Your task to perform on an android device: Show the shopping cart on bestbuy. Search for bose soundlink on bestbuy, select the first entry, and add it to the cart. Image 0: 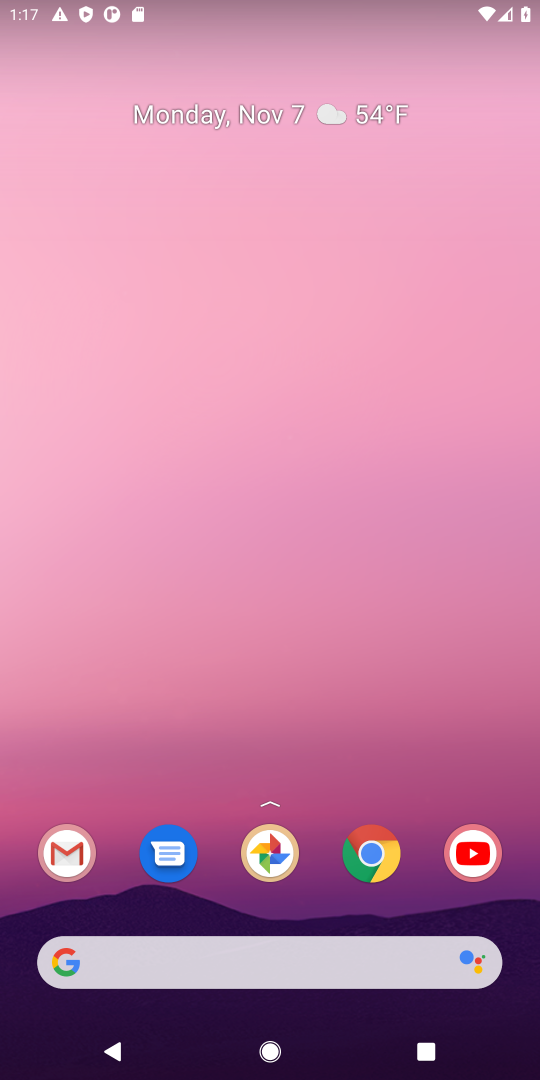
Step 0: drag from (227, 857) to (277, 99)
Your task to perform on an android device: Show the shopping cart on bestbuy. Search for bose soundlink on bestbuy, select the first entry, and add it to the cart. Image 1: 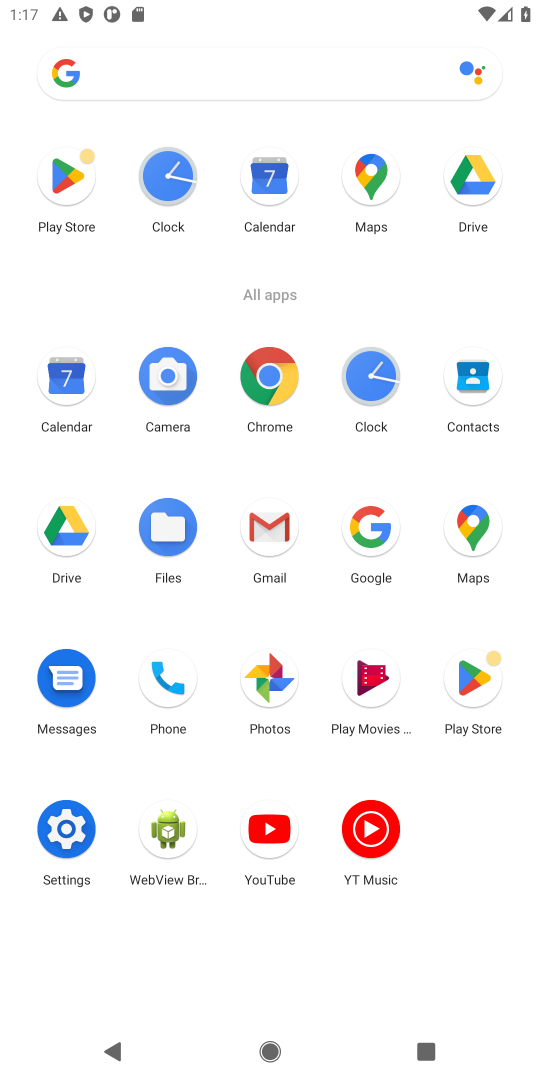
Step 1: click (286, 380)
Your task to perform on an android device: Show the shopping cart on bestbuy. Search for bose soundlink on bestbuy, select the first entry, and add it to the cart. Image 2: 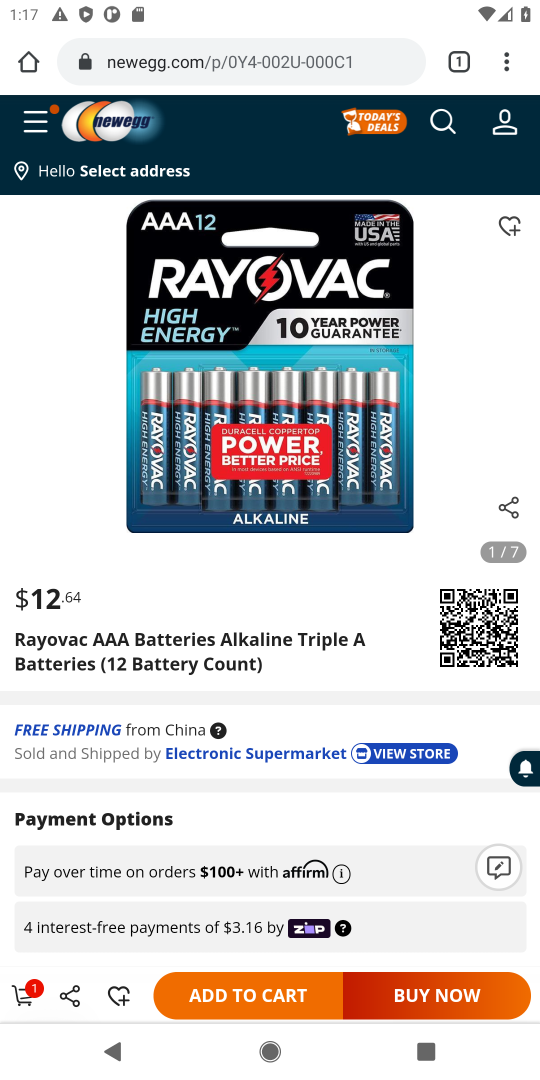
Step 2: click (286, 79)
Your task to perform on an android device: Show the shopping cart on bestbuy. Search for bose soundlink on bestbuy, select the first entry, and add it to the cart. Image 3: 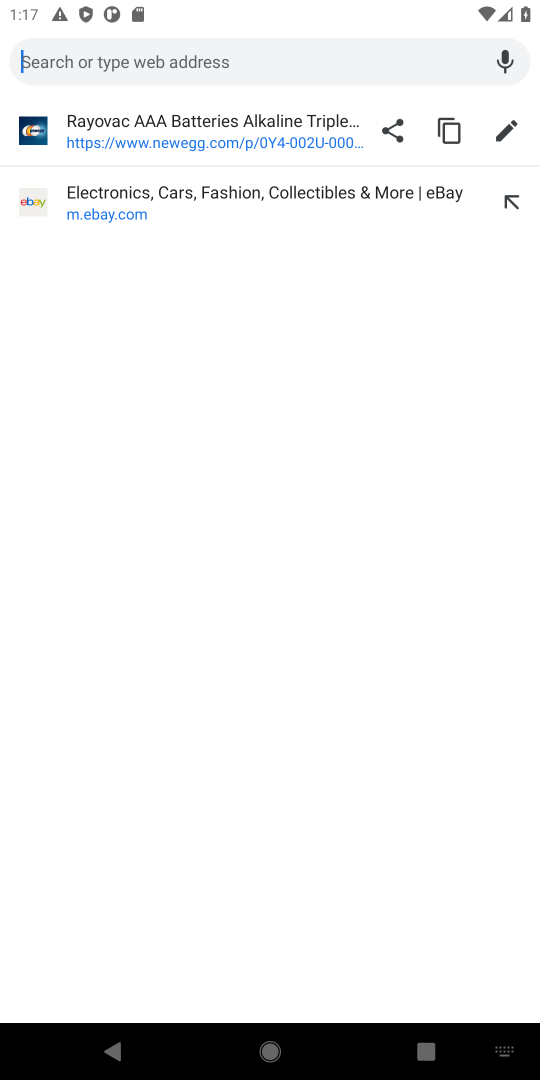
Step 3: type "bestbuy"
Your task to perform on an android device: Show the shopping cart on bestbuy. Search for bose soundlink on bestbuy, select the first entry, and add it to the cart. Image 4: 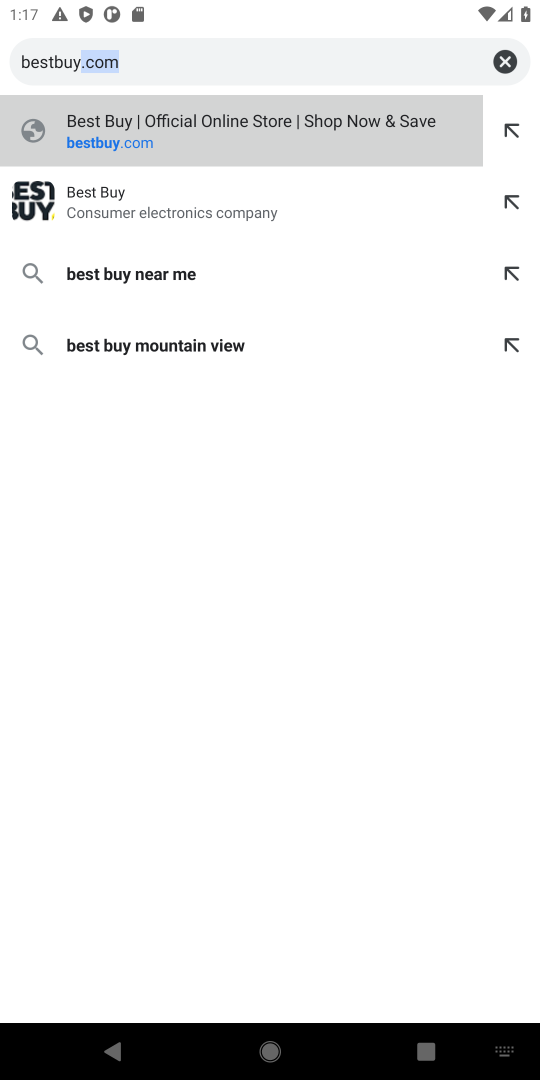
Step 4: press enter
Your task to perform on an android device: Show the shopping cart on bestbuy. Search for bose soundlink on bestbuy, select the first entry, and add it to the cart. Image 5: 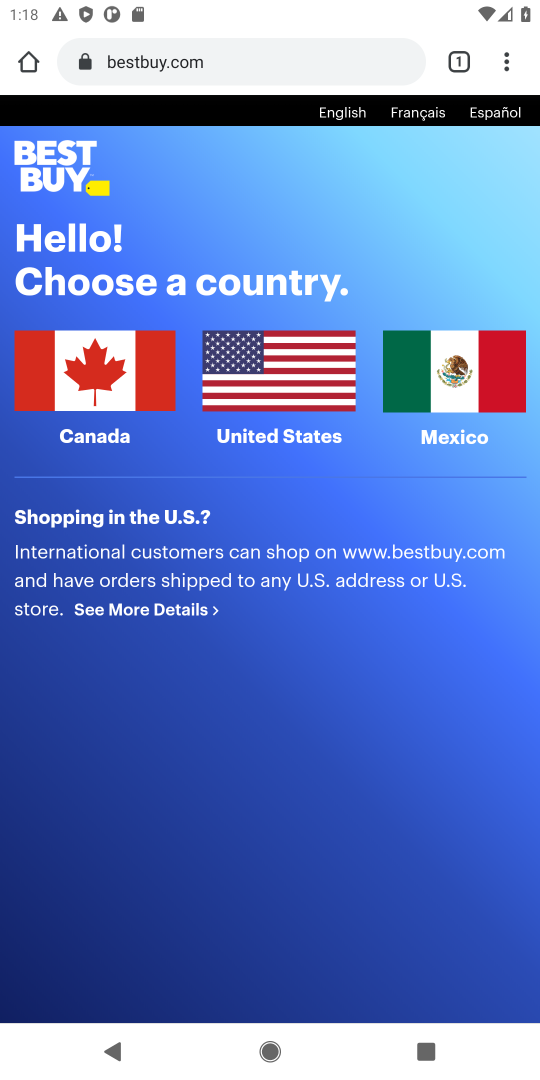
Step 5: click (84, 356)
Your task to perform on an android device: Show the shopping cart on bestbuy. Search for bose soundlink on bestbuy, select the first entry, and add it to the cart. Image 6: 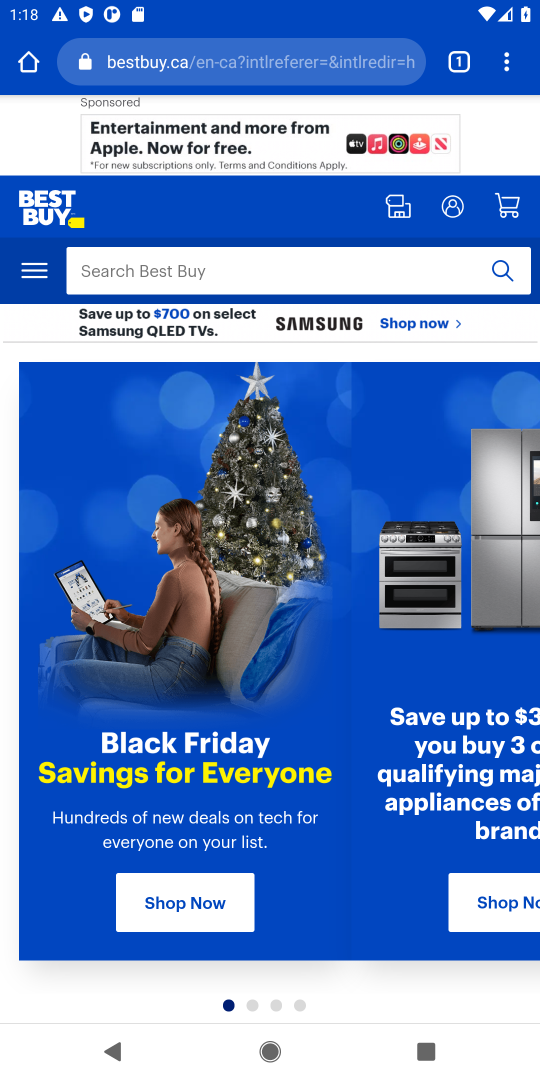
Step 6: click (99, 259)
Your task to perform on an android device: Show the shopping cart on bestbuy. Search for bose soundlink on bestbuy, select the first entry, and add it to the cart. Image 7: 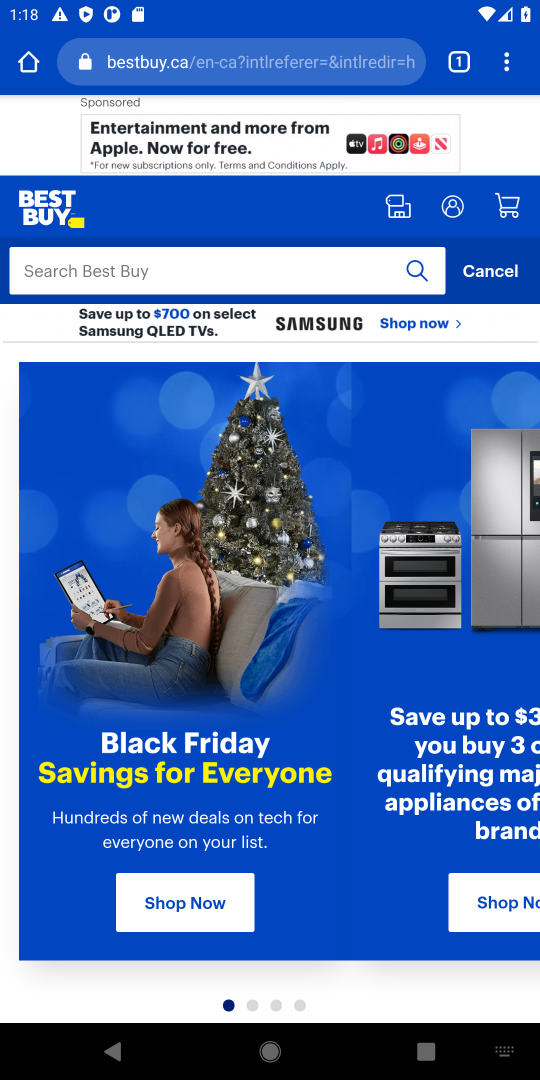
Step 7: type "bose soundlink"
Your task to perform on an android device: Show the shopping cart on bestbuy. Search for bose soundlink on bestbuy, select the first entry, and add it to the cart. Image 8: 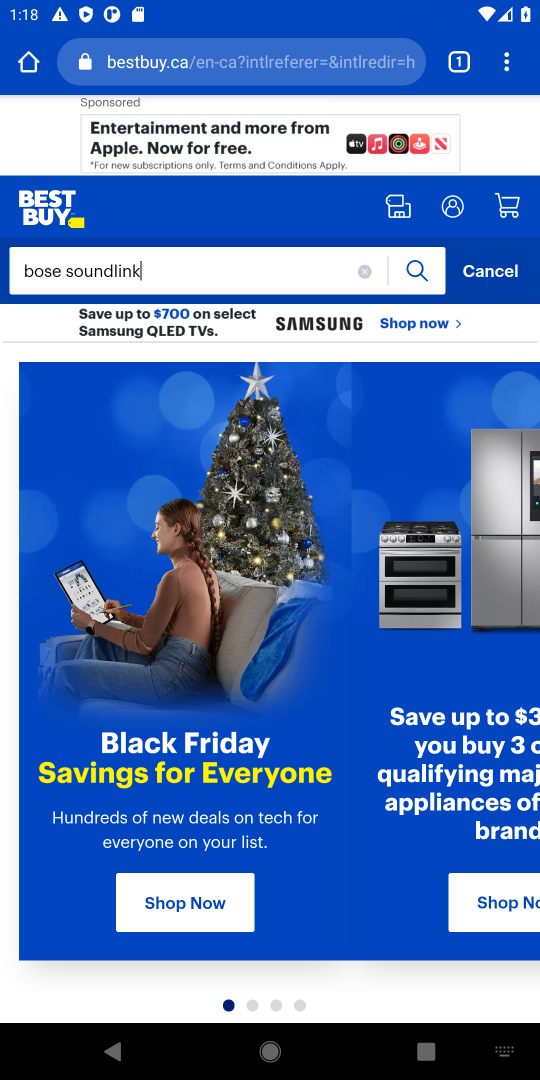
Step 8: press enter
Your task to perform on an android device: Show the shopping cart on bestbuy. Search for bose soundlink on bestbuy, select the first entry, and add it to the cart. Image 9: 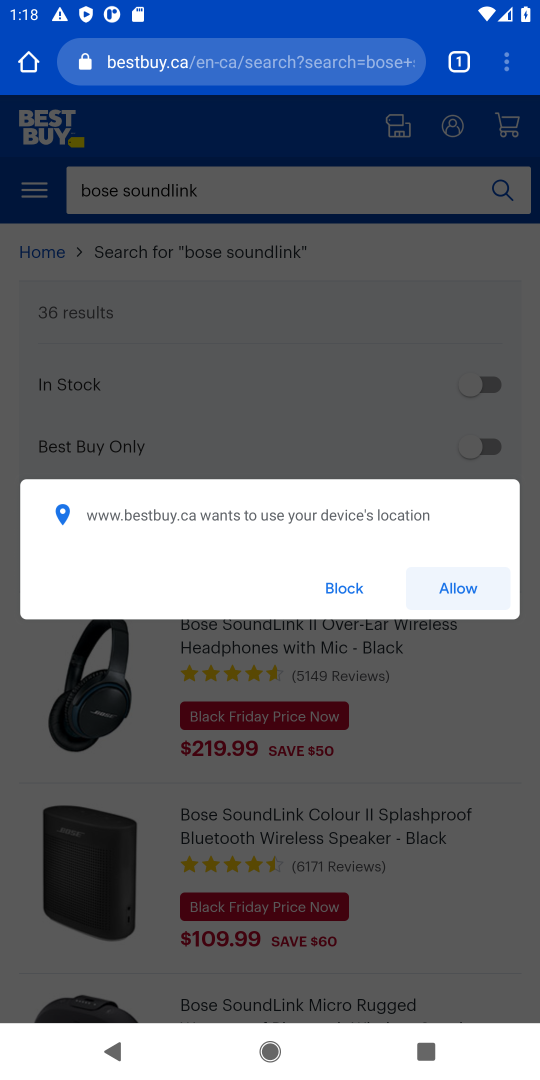
Step 9: click (465, 588)
Your task to perform on an android device: Show the shopping cart on bestbuy. Search for bose soundlink on bestbuy, select the first entry, and add it to the cart. Image 10: 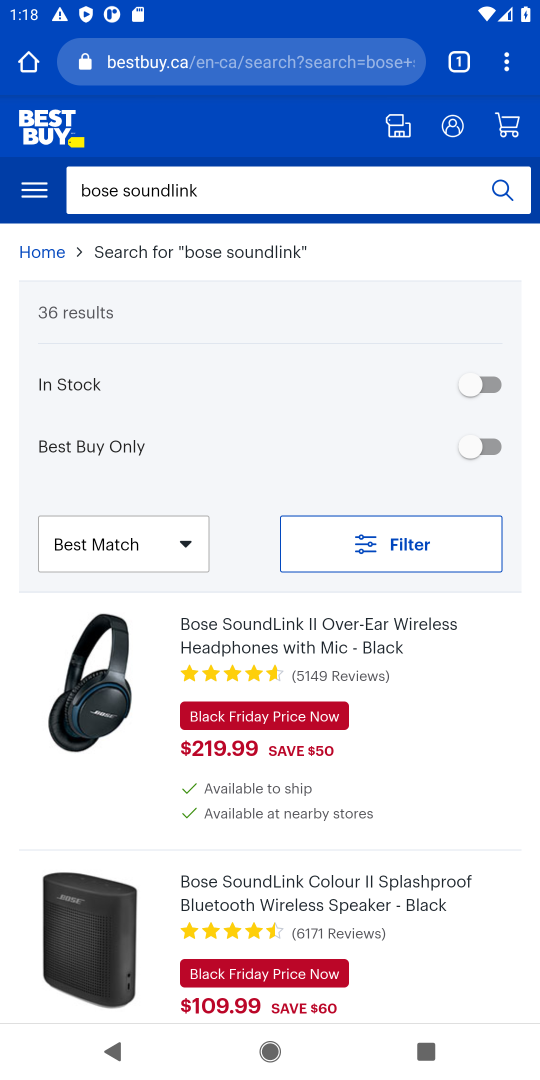
Step 10: click (190, 636)
Your task to perform on an android device: Show the shopping cart on bestbuy. Search for bose soundlink on bestbuy, select the first entry, and add it to the cart. Image 11: 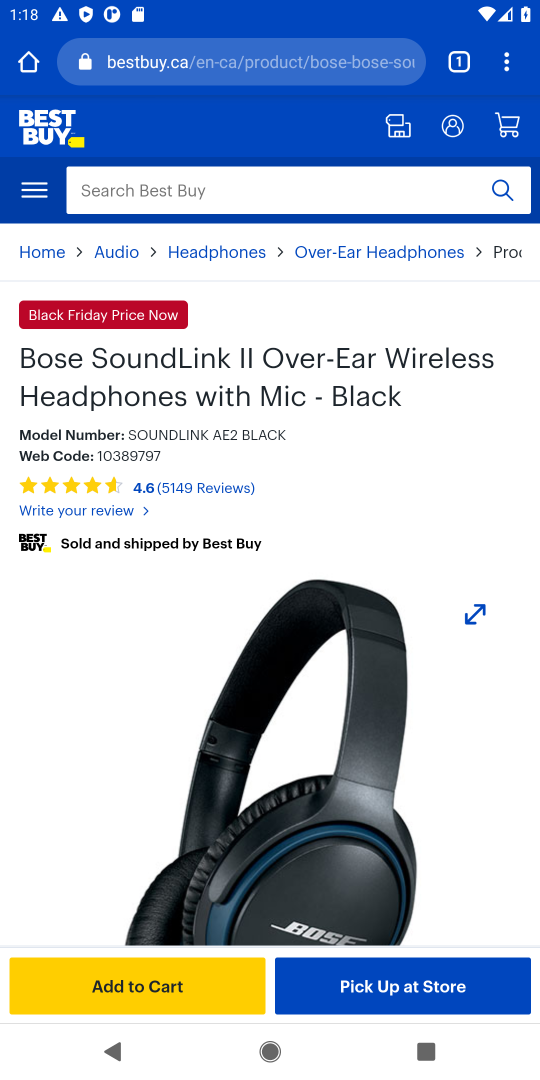
Step 11: drag from (271, 834) to (295, 360)
Your task to perform on an android device: Show the shopping cart on bestbuy. Search for bose soundlink on bestbuy, select the first entry, and add it to the cart. Image 12: 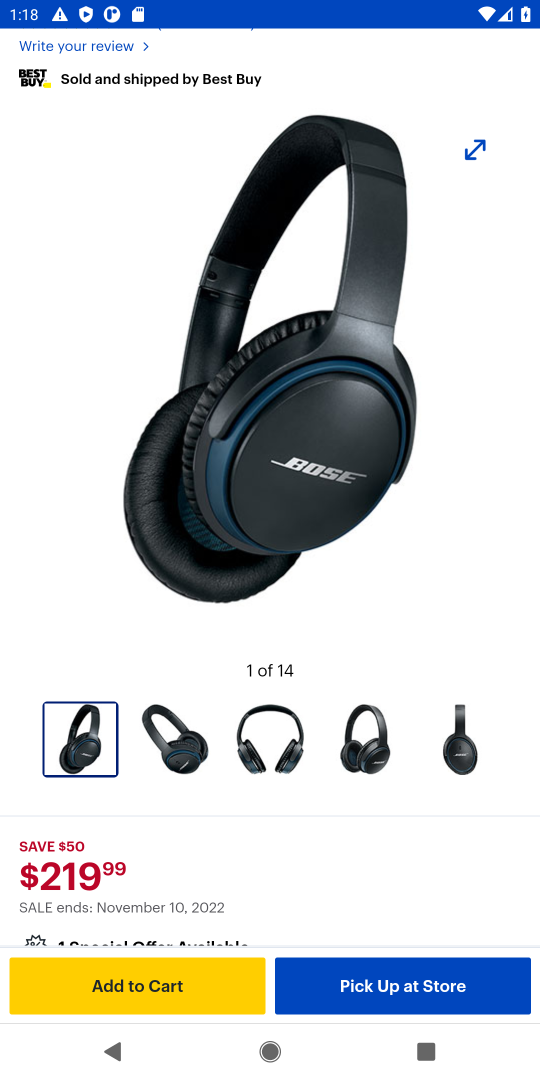
Step 12: click (129, 988)
Your task to perform on an android device: Show the shopping cart on bestbuy. Search for bose soundlink on bestbuy, select the first entry, and add it to the cart. Image 13: 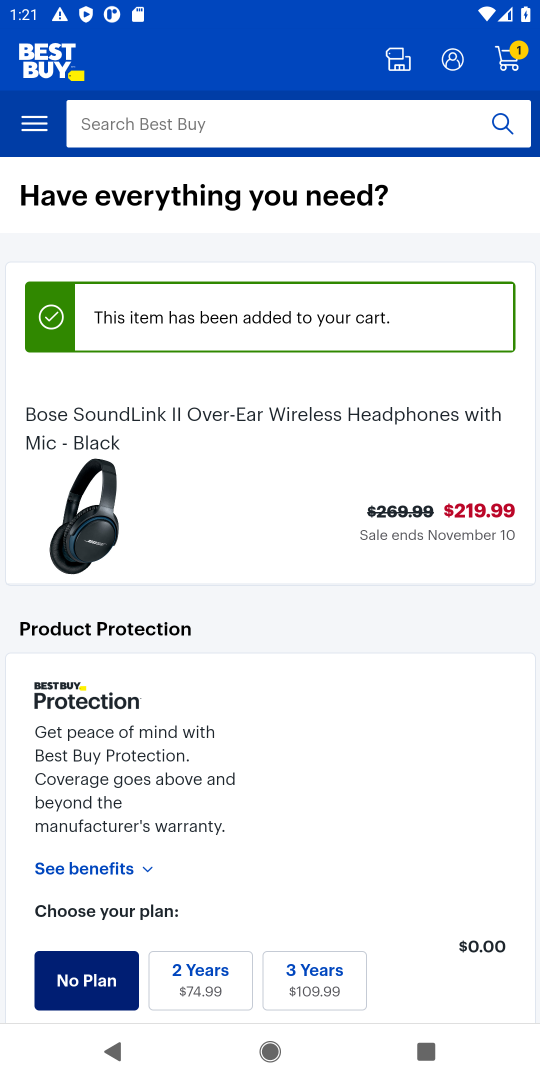
Step 13: task complete